Your task to perform on an android device: Is it going to rain today? Image 0: 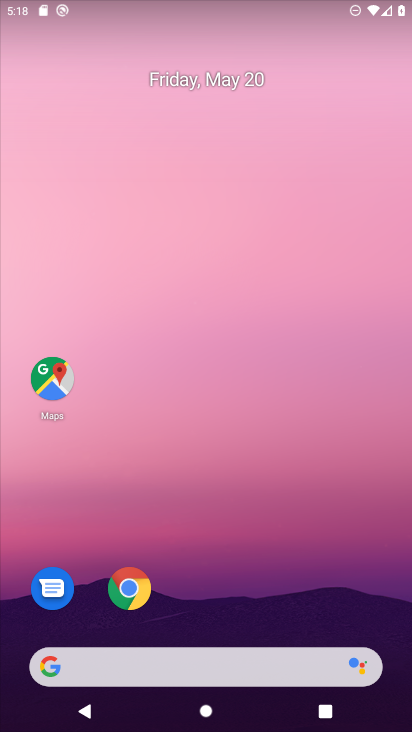
Step 0: drag from (235, 578) to (211, 167)
Your task to perform on an android device: Is it going to rain today? Image 1: 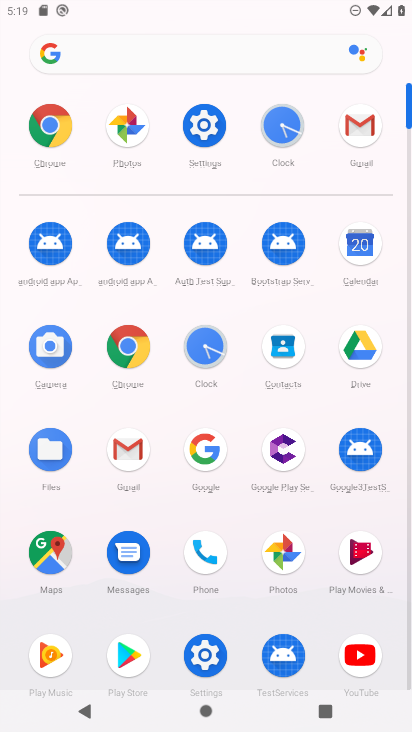
Step 1: click (203, 463)
Your task to perform on an android device: Is it going to rain today? Image 2: 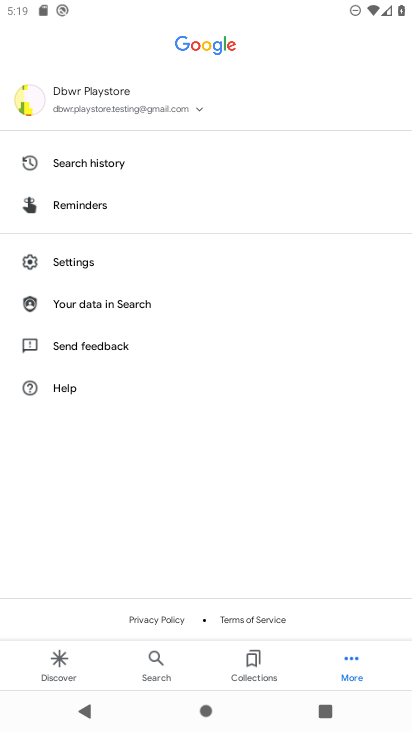
Step 2: press back button
Your task to perform on an android device: Is it going to rain today? Image 3: 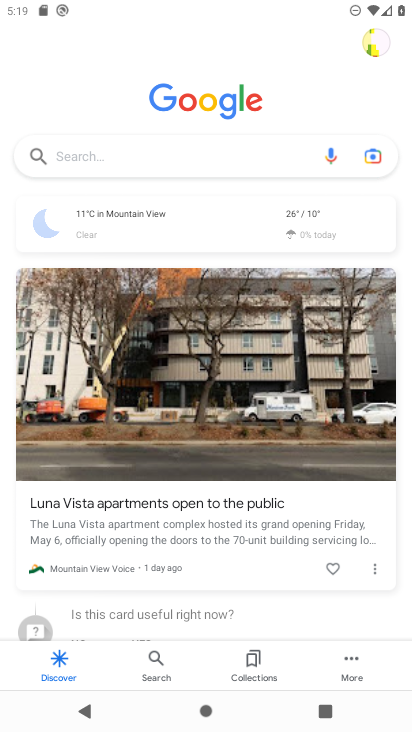
Step 3: click (126, 167)
Your task to perform on an android device: Is it going to rain today? Image 4: 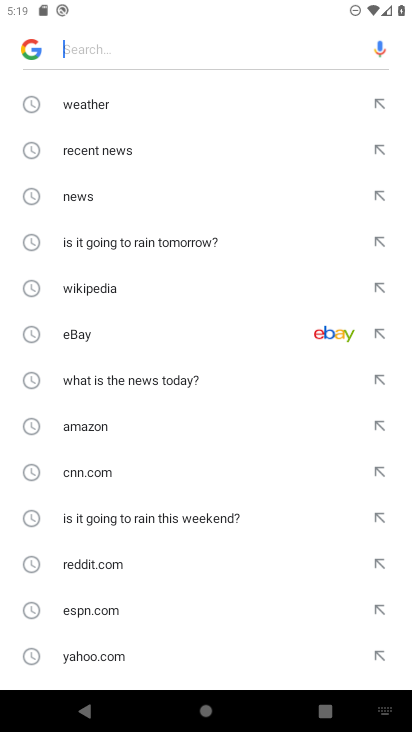
Step 4: click (91, 104)
Your task to perform on an android device: Is it going to rain today? Image 5: 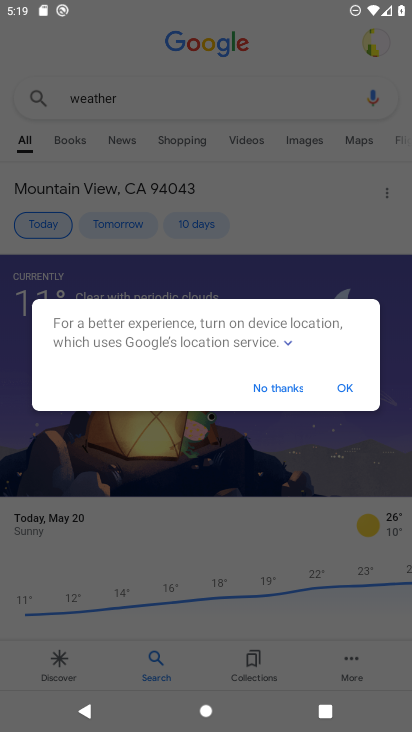
Step 5: click (292, 387)
Your task to perform on an android device: Is it going to rain today? Image 6: 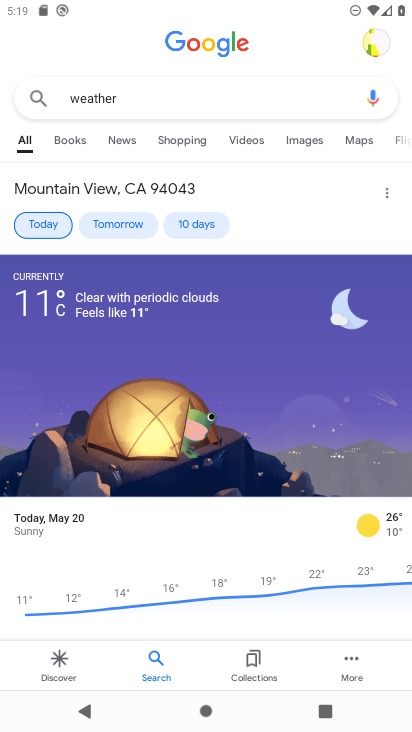
Step 6: task complete